Your task to perform on an android device: Play the last video I watched on Youtube Image 0: 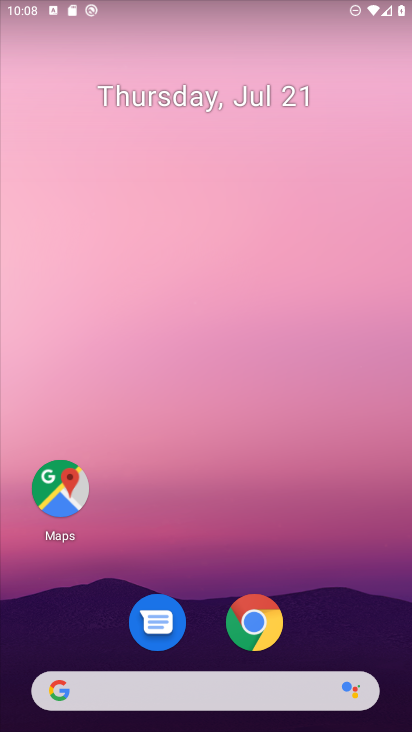
Step 0: drag from (215, 614) to (185, 41)
Your task to perform on an android device: Play the last video I watched on Youtube Image 1: 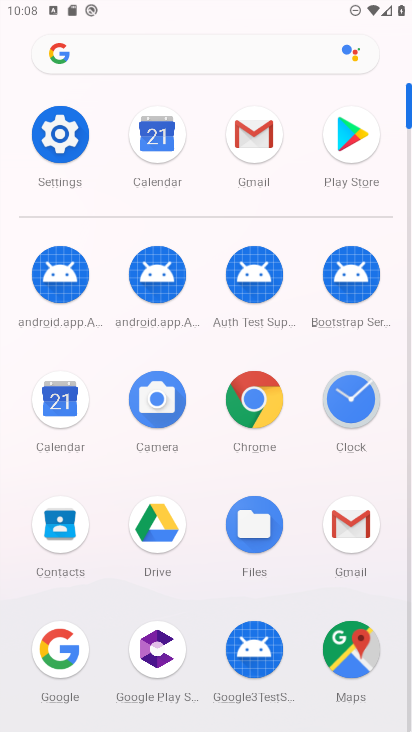
Step 1: drag from (231, 628) to (232, 15)
Your task to perform on an android device: Play the last video I watched on Youtube Image 2: 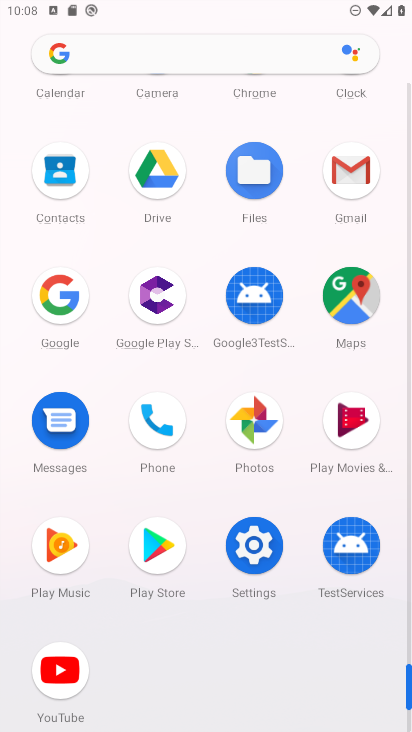
Step 2: click (52, 661)
Your task to perform on an android device: Play the last video I watched on Youtube Image 3: 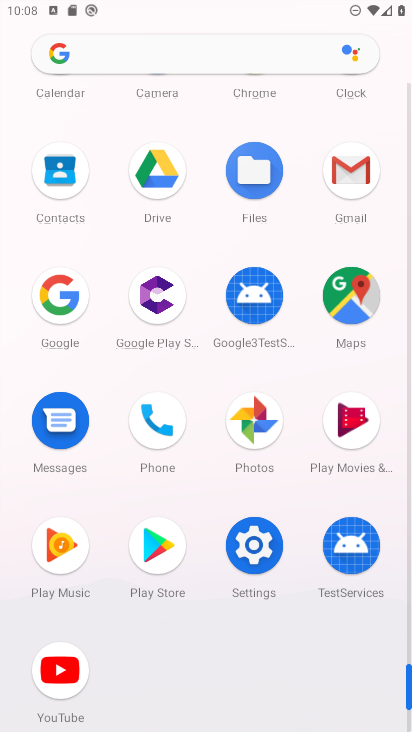
Step 3: click (52, 661)
Your task to perform on an android device: Play the last video I watched on Youtube Image 4: 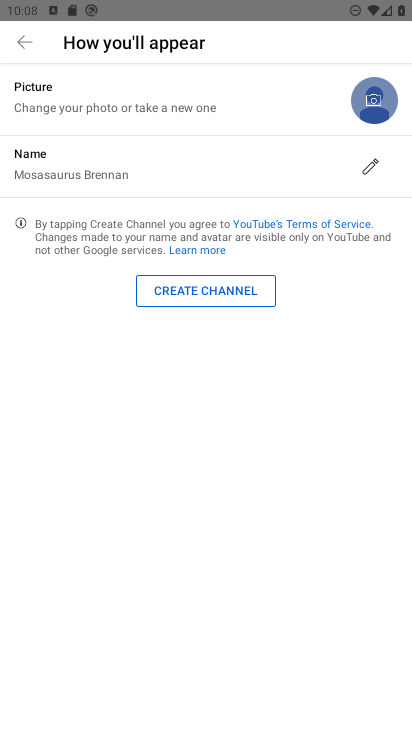
Step 4: click (26, 48)
Your task to perform on an android device: Play the last video I watched on Youtube Image 5: 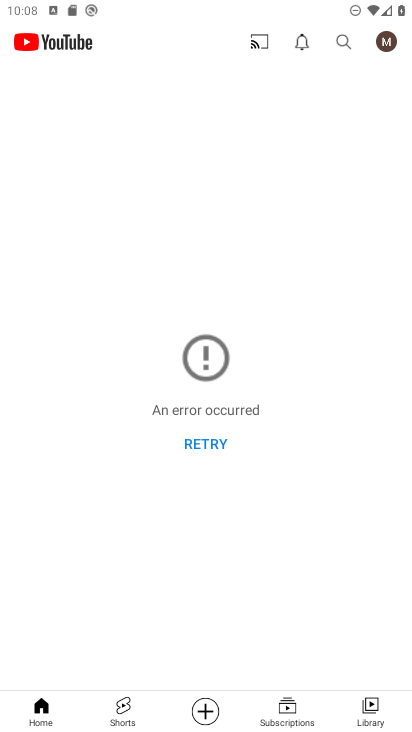
Step 5: click (365, 709)
Your task to perform on an android device: Play the last video I watched on Youtube Image 6: 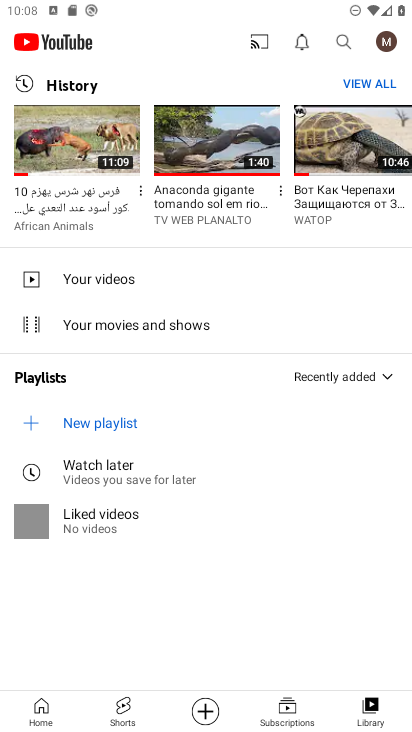
Step 6: click (43, 153)
Your task to perform on an android device: Play the last video I watched on Youtube Image 7: 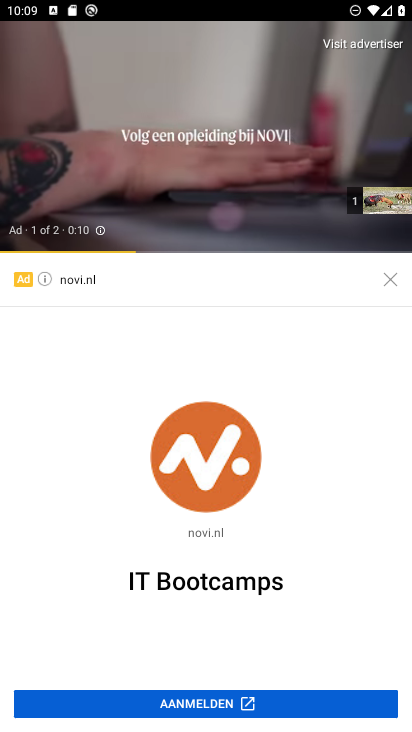
Step 7: click (386, 276)
Your task to perform on an android device: Play the last video I watched on Youtube Image 8: 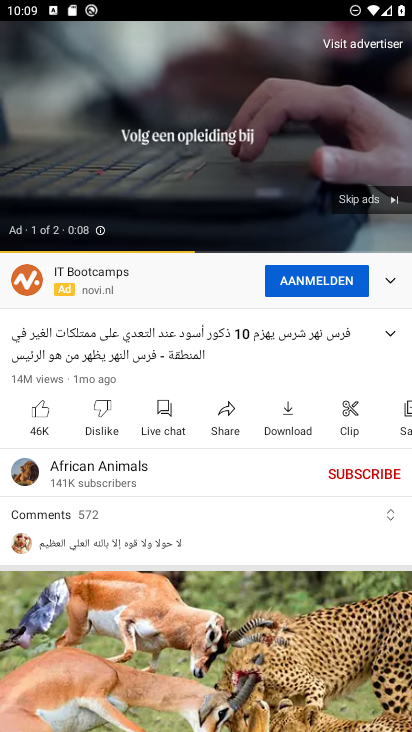
Step 8: task complete